Your task to perform on an android device: turn smart compose on in the gmail app Image 0: 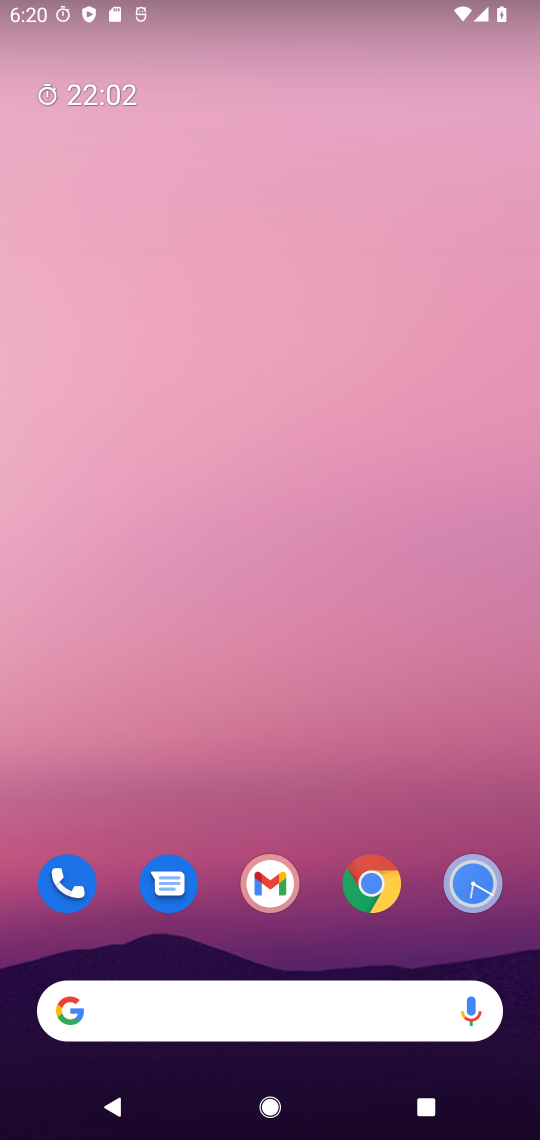
Step 0: click (286, 886)
Your task to perform on an android device: turn smart compose on in the gmail app Image 1: 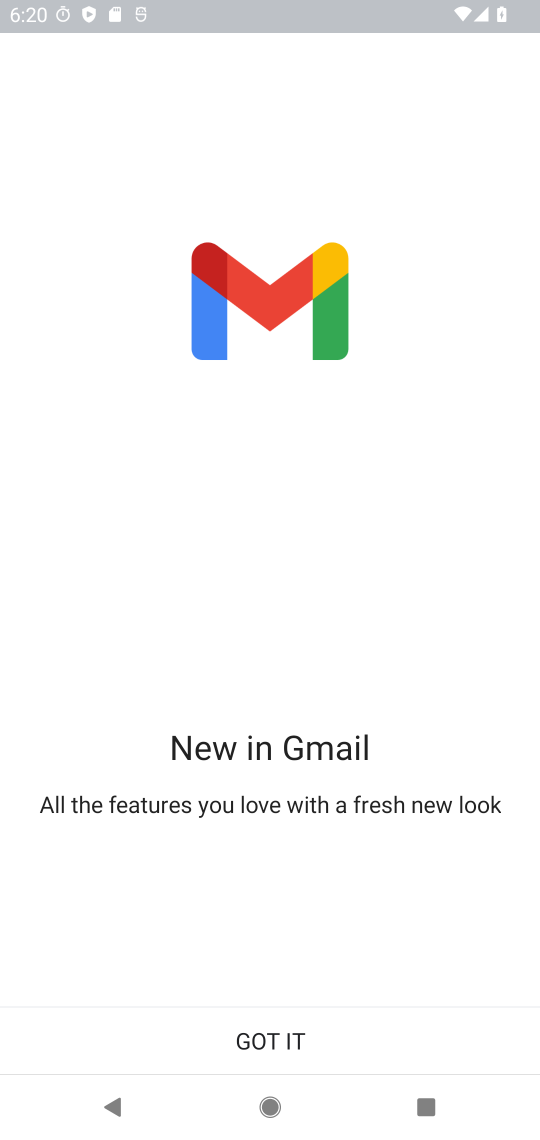
Step 1: click (323, 1055)
Your task to perform on an android device: turn smart compose on in the gmail app Image 2: 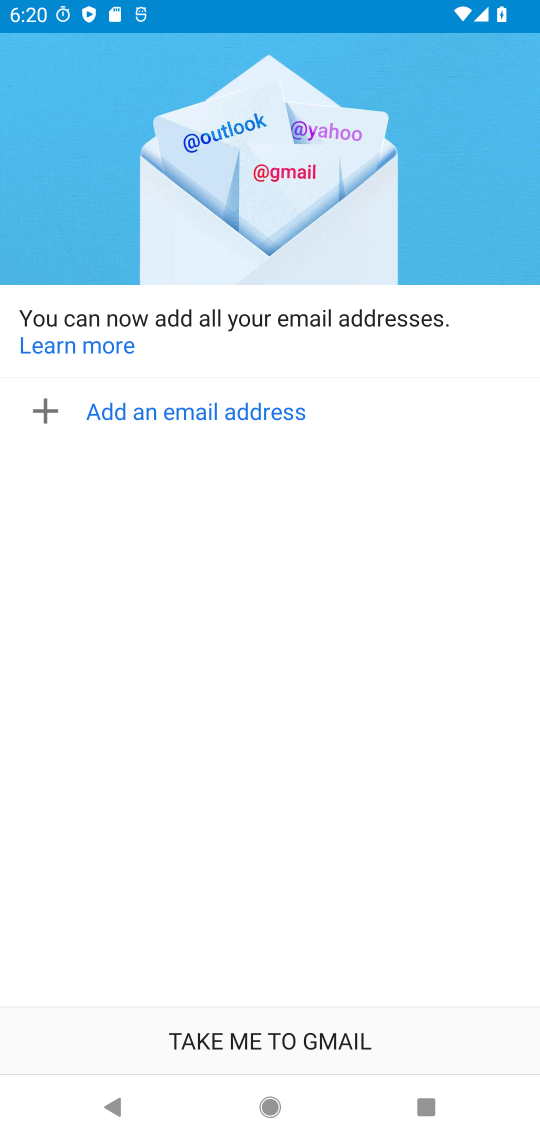
Step 2: click (323, 1047)
Your task to perform on an android device: turn smart compose on in the gmail app Image 3: 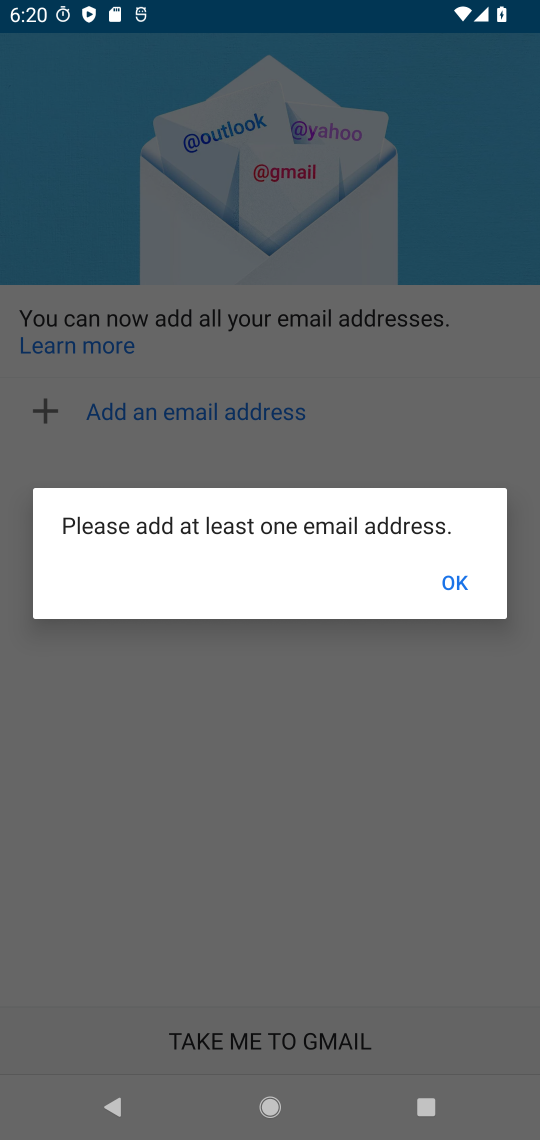
Step 3: click (453, 576)
Your task to perform on an android device: turn smart compose on in the gmail app Image 4: 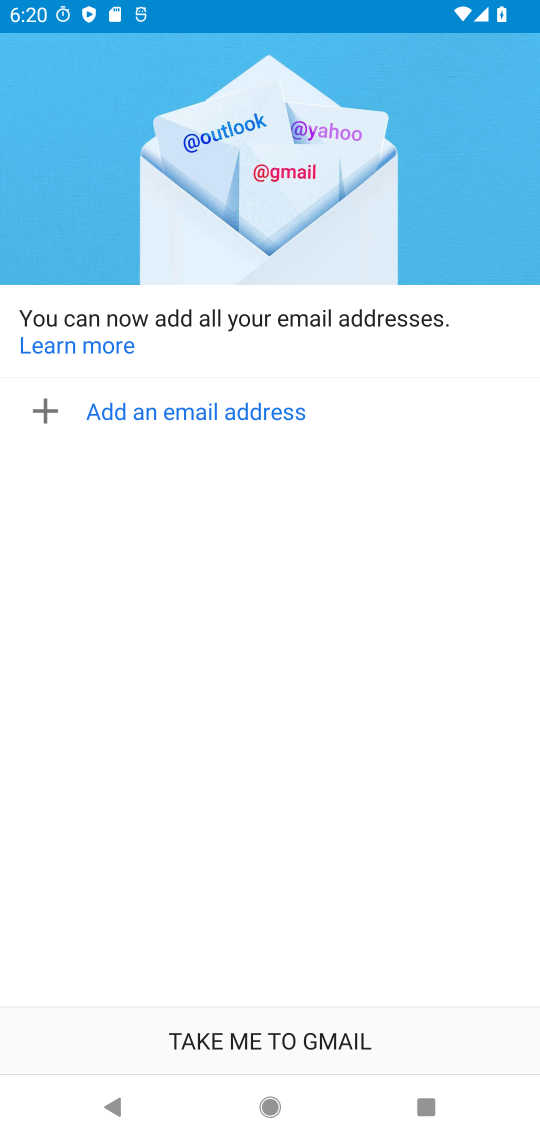
Step 4: task complete